Your task to perform on an android device: Open battery settings Image 0: 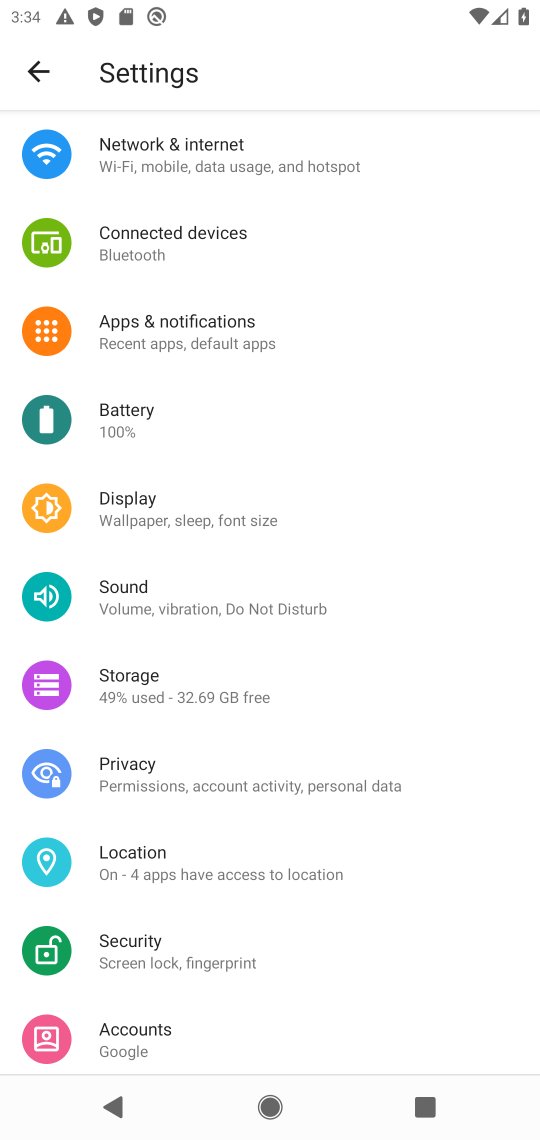
Step 0: click (159, 422)
Your task to perform on an android device: Open battery settings Image 1: 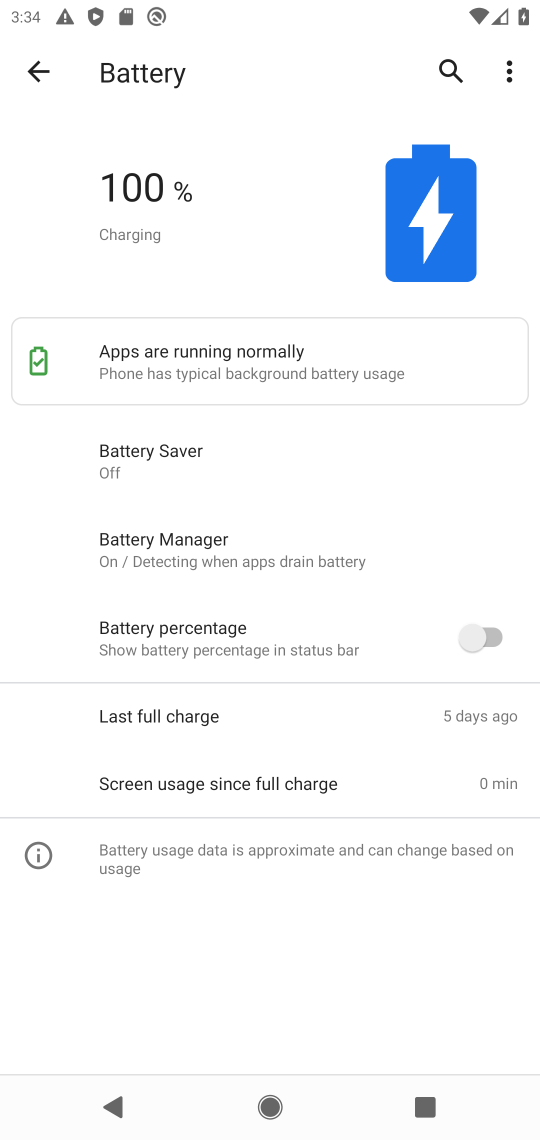
Step 1: click (131, 425)
Your task to perform on an android device: Open battery settings Image 2: 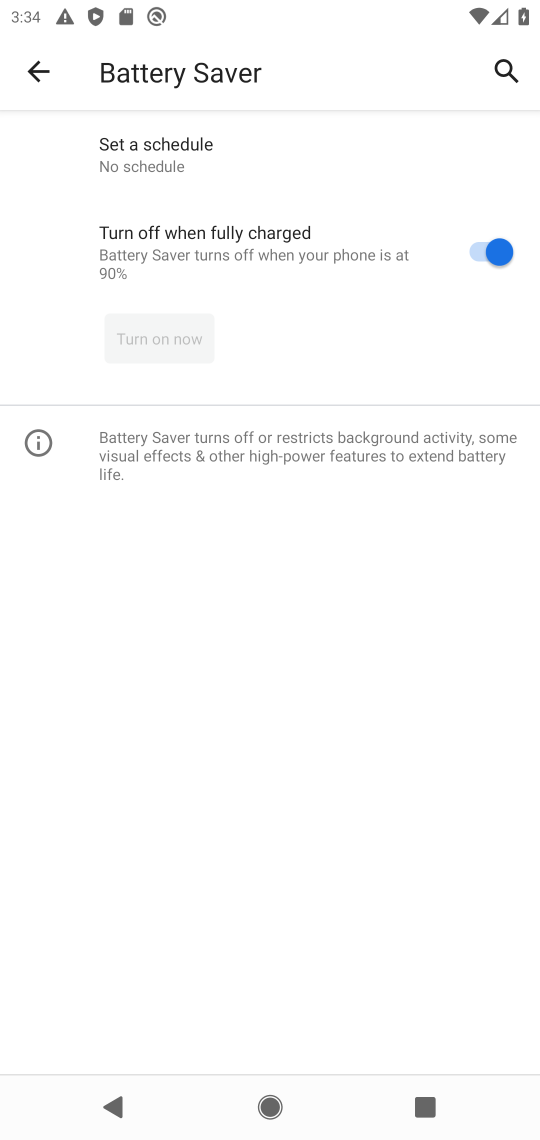
Step 2: task complete